Your task to perform on an android device: Open the stopwatch Image 0: 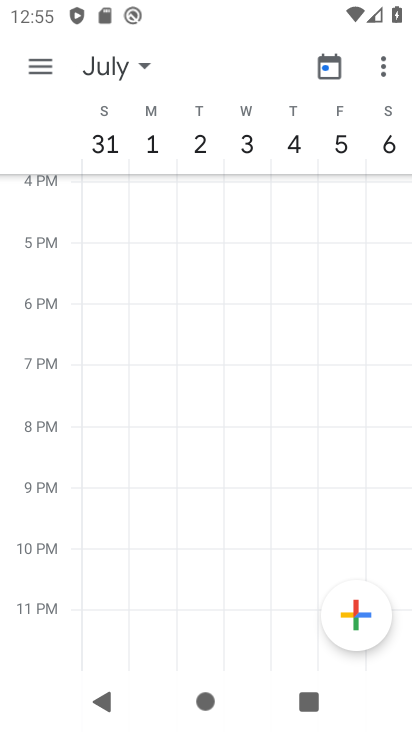
Step 0: press home button
Your task to perform on an android device: Open the stopwatch Image 1: 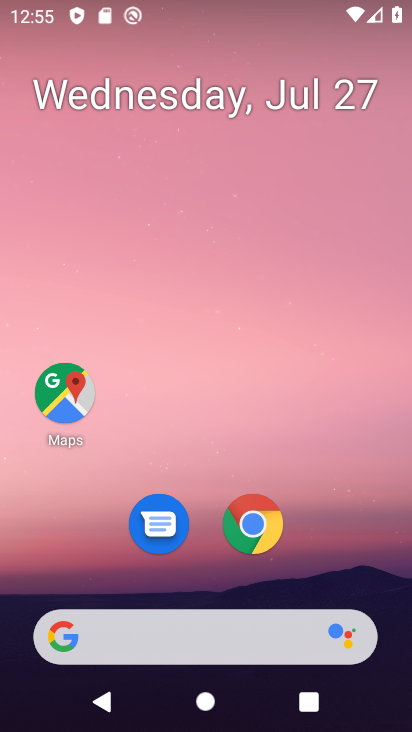
Step 1: drag from (339, 543) to (347, 58)
Your task to perform on an android device: Open the stopwatch Image 2: 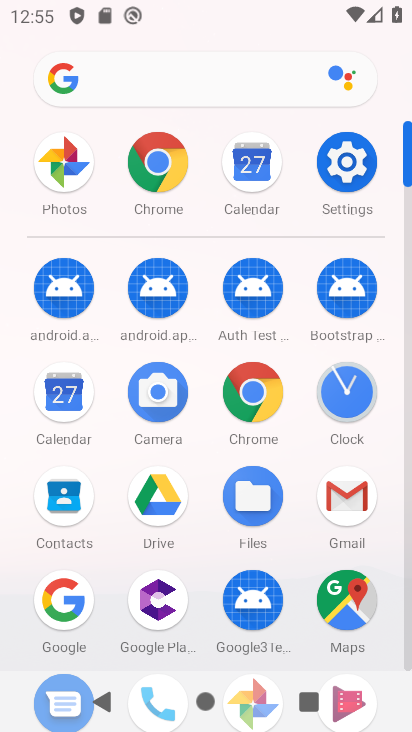
Step 2: click (333, 395)
Your task to perform on an android device: Open the stopwatch Image 3: 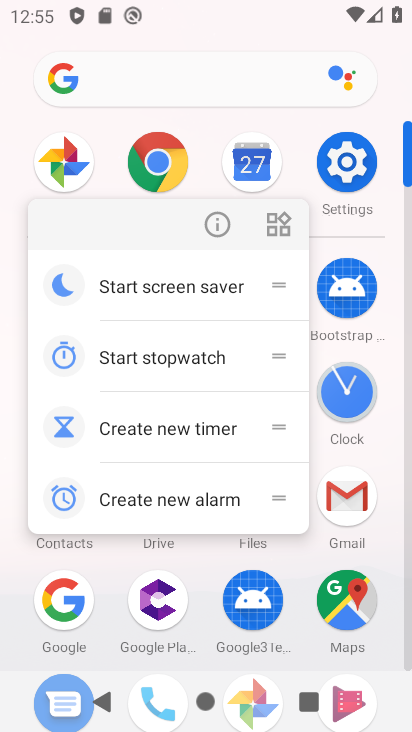
Step 3: click (344, 384)
Your task to perform on an android device: Open the stopwatch Image 4: 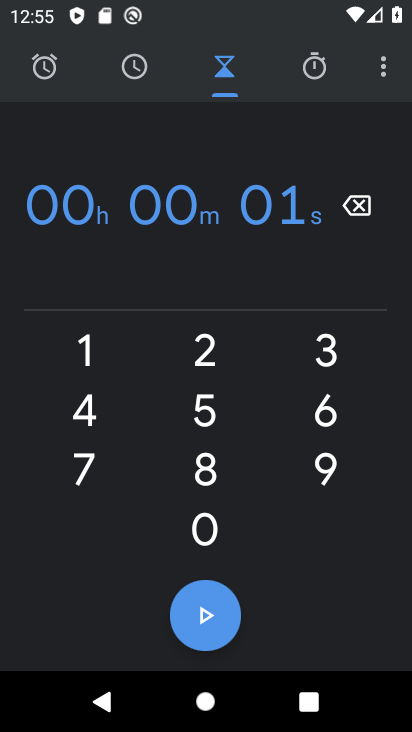
Step 4: click (320, 71)
Your task to perform on an android device: Open the stopwatch Image 5: 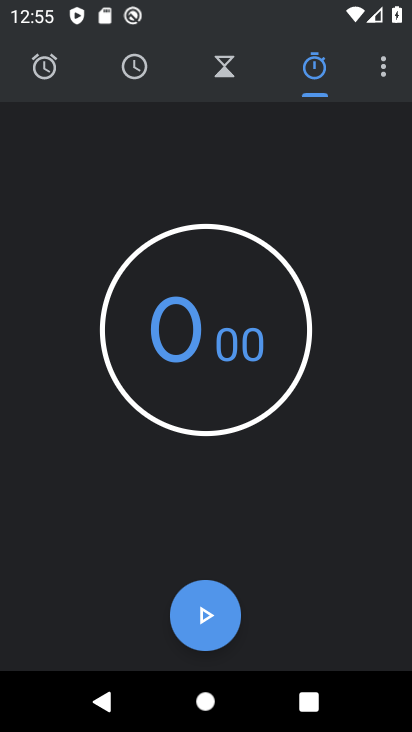
Step 5: task complete